Your task to perform on an android device: toggle javascript in the chrome app Image 0: 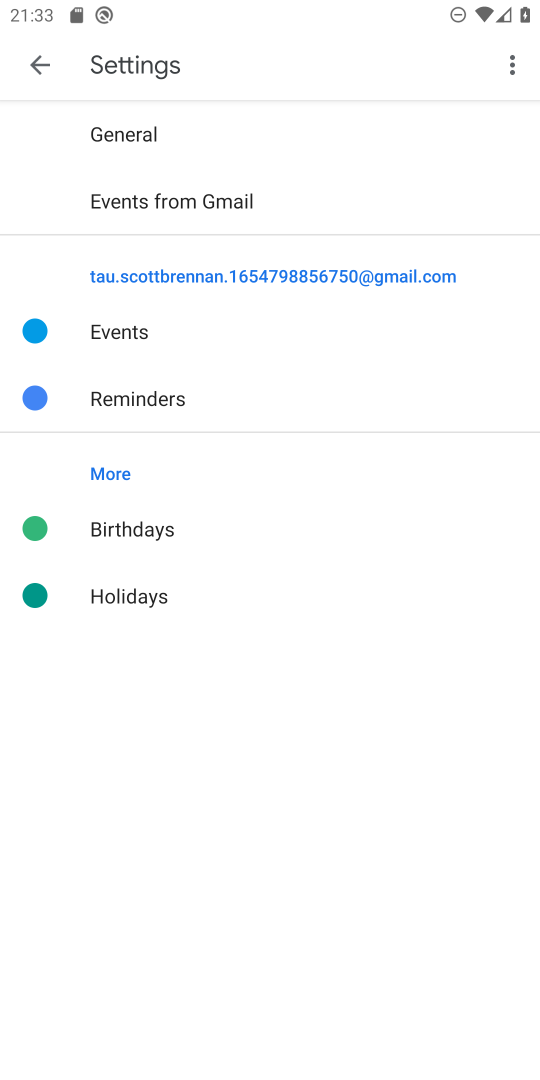
Step 0: press home button
Your task to perform on an android device: toggle javascript in the chrome app Image 1: 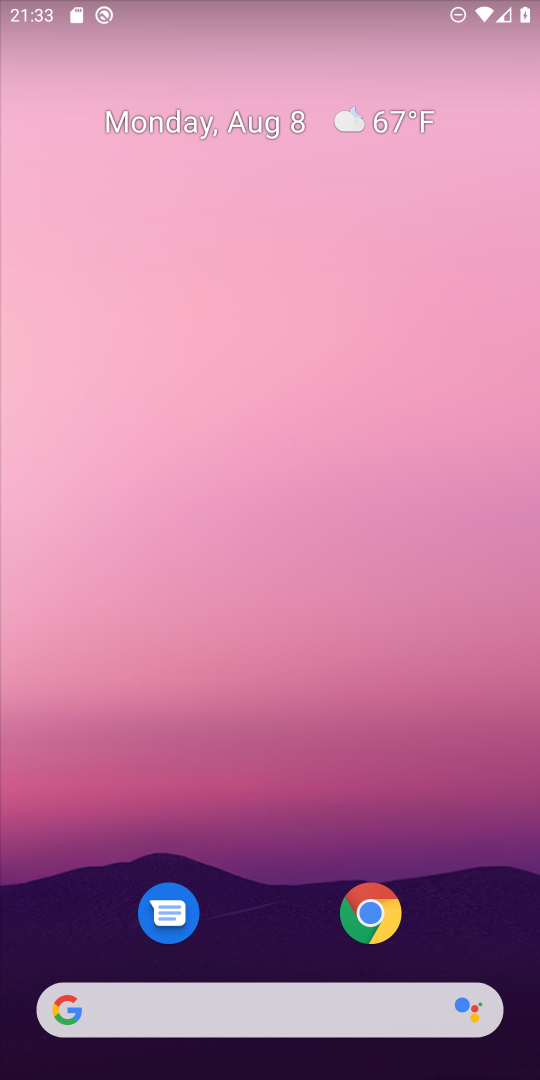
Step 1: click (370, 913)
Your task to perform on an android device: toggle javascript in the chrome app Image 2: 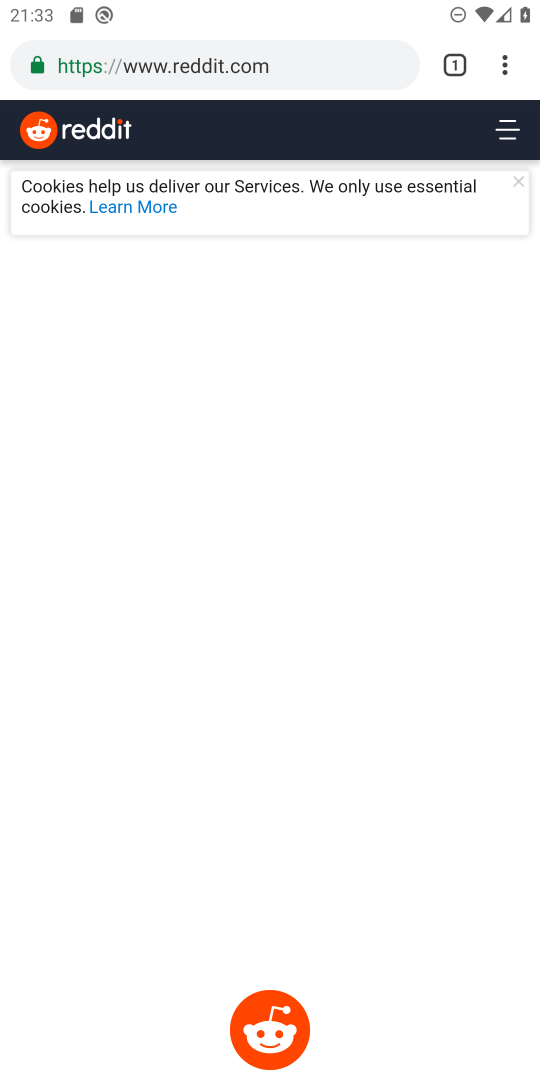
Step 2: drag from (506, 64) to (290, 856)
Your task to perform on an android device: toggle javascript in the chrome app Image 3: 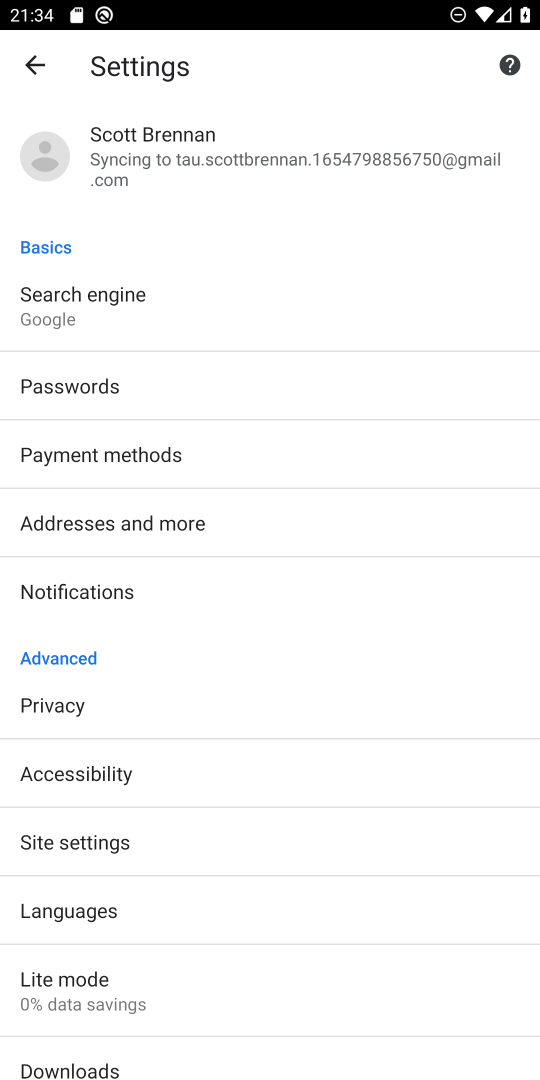
Step 3: drag from (141, 640) to (144, 537)
Your task to perform on an android device: toggle javascript in the chrome app Image 4: 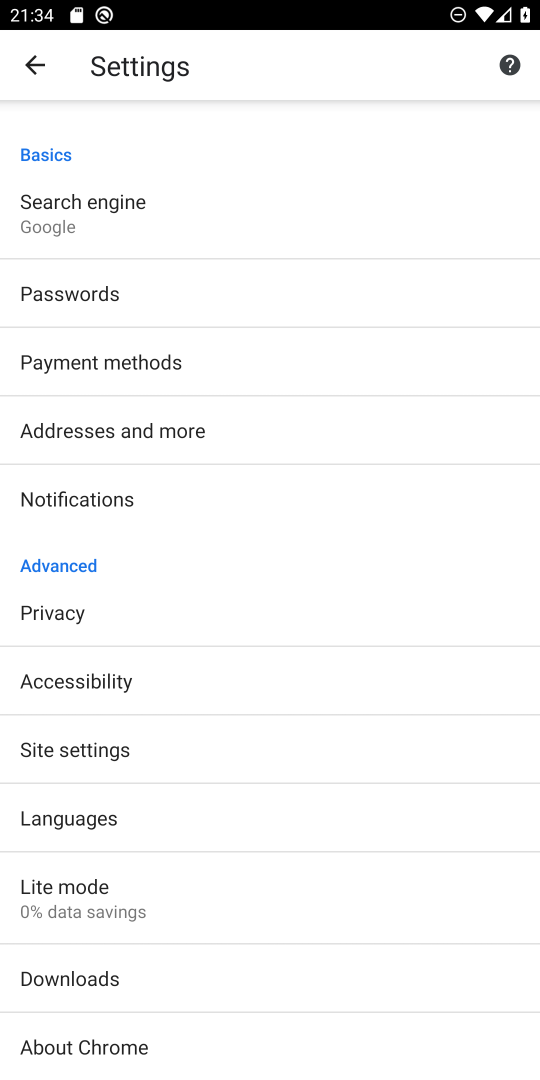
Step 4: click (111, 751)
Your task to perform on an android device: toggle javascript in the chrome app Image 5: 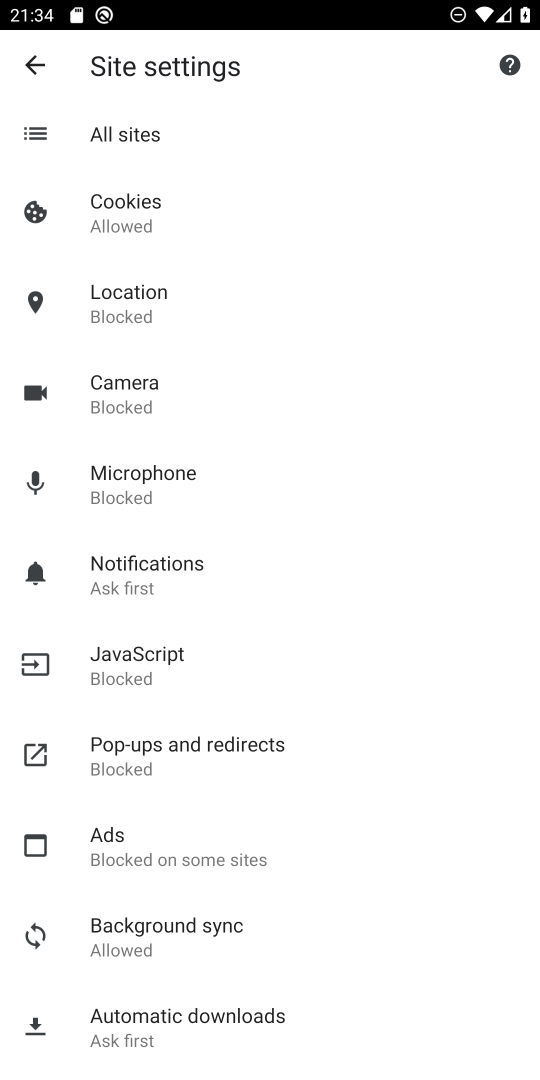
Step 5: click (160, 663)
Your task to perform on an android device: toggle javascript in the chrome app Image 6: 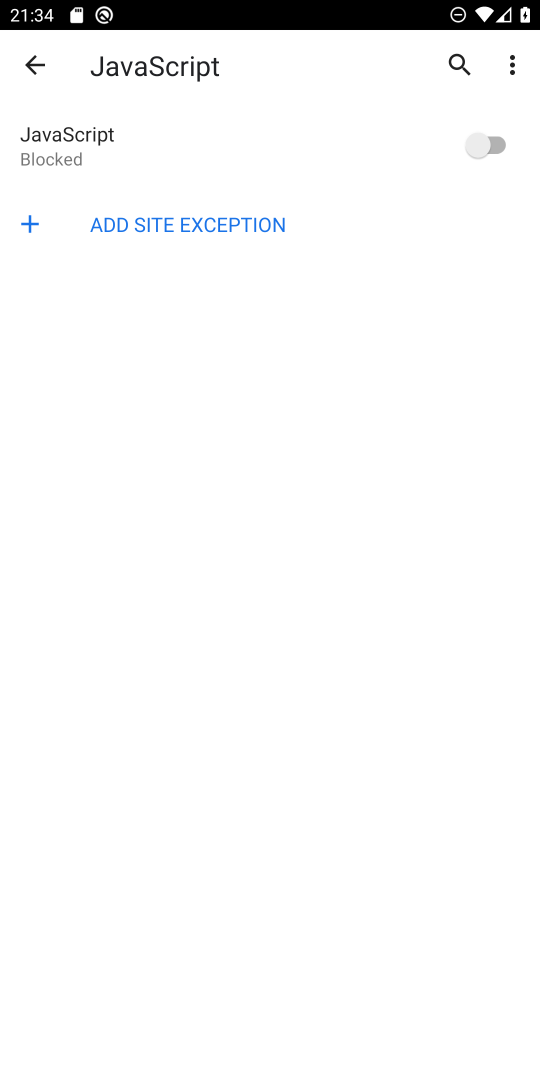
Step 6: click (486, 139)
Your task to perform on an android device: toggle javascript in the chrome app Image 7: 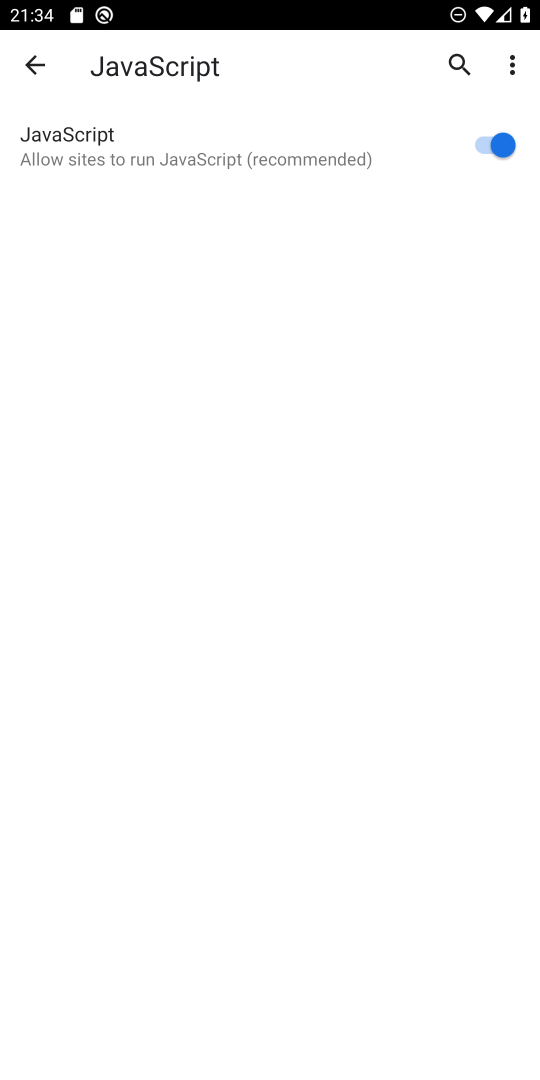
Step 7: task complete